Your task to perform on an android device: Add alienware area 51 to the cart on ebay.com, then select checkout. Image 0: 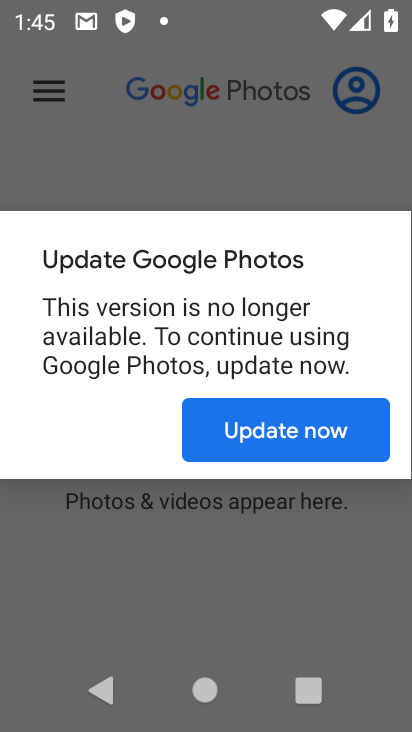
Step 0: press home button
Your task to perform on an android device: Add alienware area 51 to the cart on ebay.com, then select checkout. Image 1: 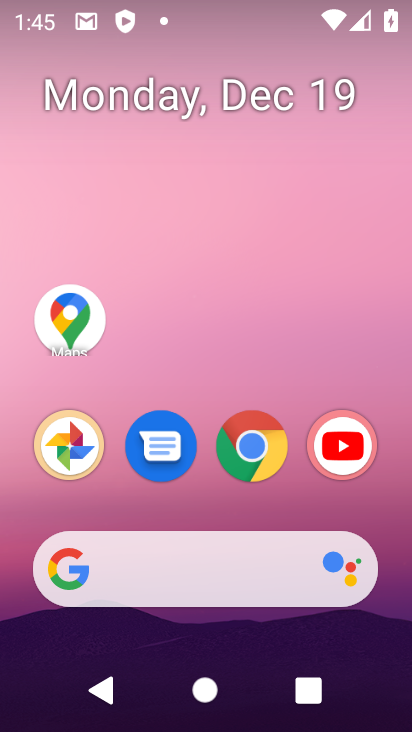
Step 1: click (261, 465)
Your task to perform on an android device: Add alienware area 51 to the cart on ebay.com, then select checkout. Image 2: 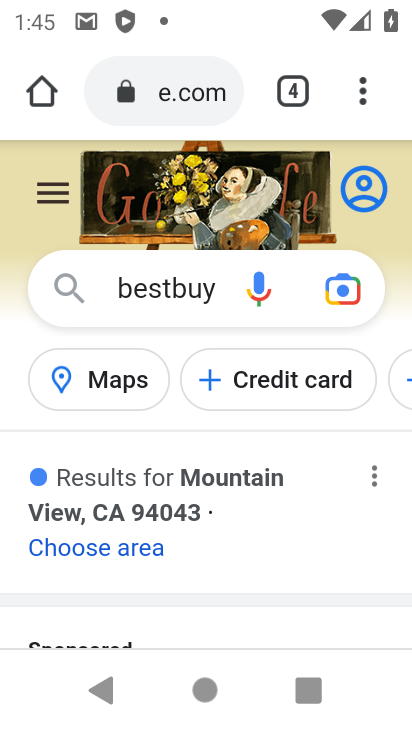
Step 2: click (186, 100)
Your task to perform on an android device: Add alienware area 51 to the cart on ebay.com, then select checkout. Image 3: 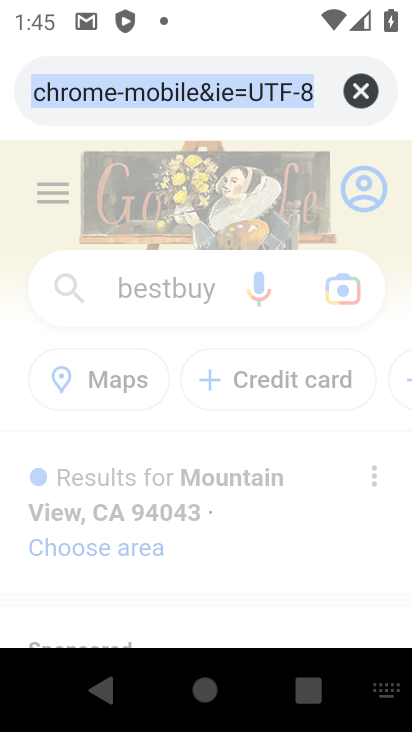
Step 3: type "alienware area 51"
Your task to perform on an android device: Add alienware area 51 to the cart on ebay.com, then select checkout. Image 4: 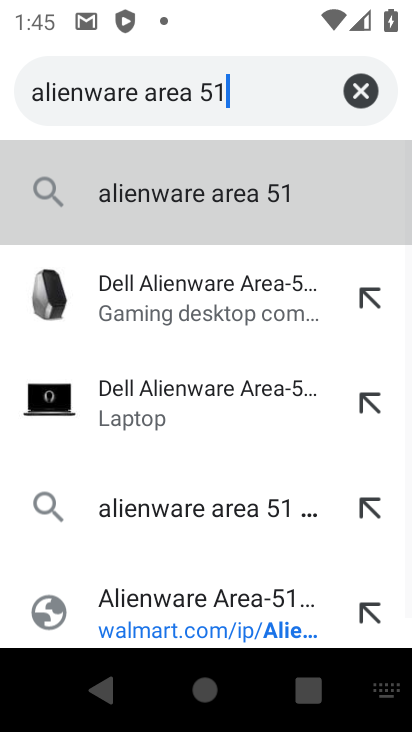
Step 4: click (228, 291)
Your task to perform on an android device: Add alienware area 51 to the cart on ebay.com, then select checkout. Image 5: 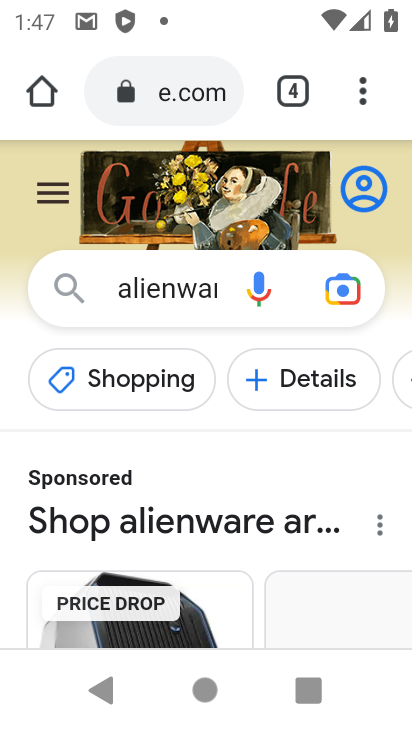
Step 5: task complete